Your task to perform on an android device: open app "The Home Depot" (install if not already installed) Image 0: 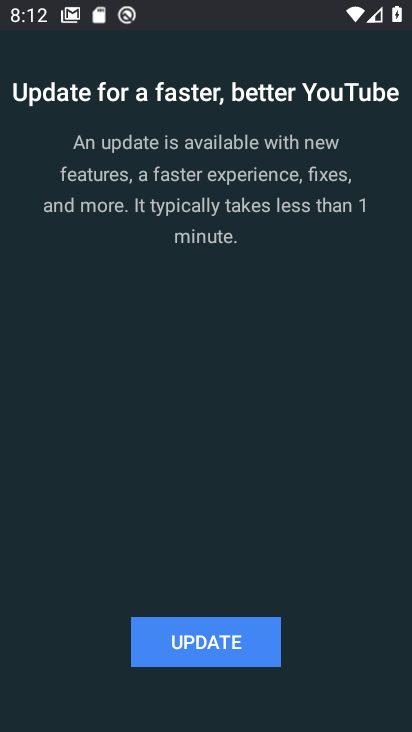
Step 0: press home button
Your task to perform on an android device: open app "The Home Depot" (install if not already installed) Image 1: 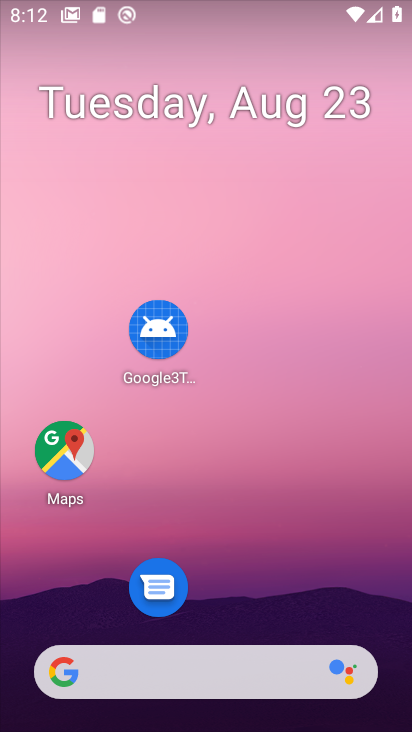
Step 1: drag from (245, 624) to (313, 11)
Your task to perform on an android device: open app "The Home Depot" (install if not already installed) Image 2: 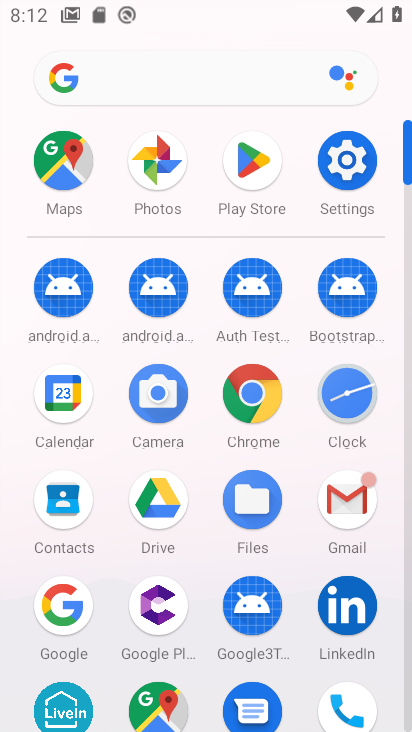
Step 2: click (248, 165)
Your task to perform on an android device: open app "The Home Depot" (install if not already installed) Image 3: 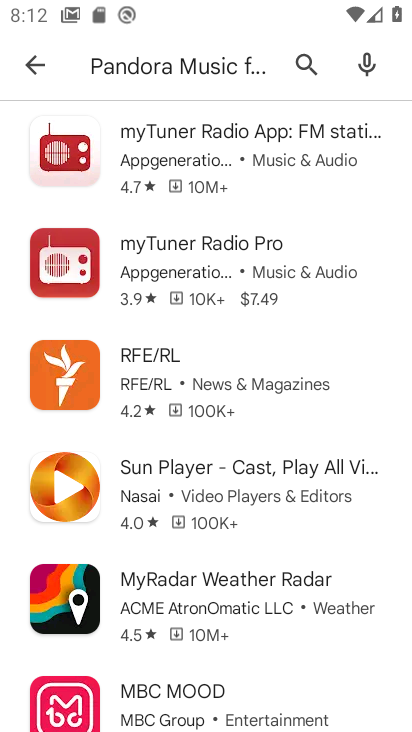
Step 3: click (308, 81)
Your task to perform on an android device: open app "The Home Depot" (install if not already installed) Image 4: 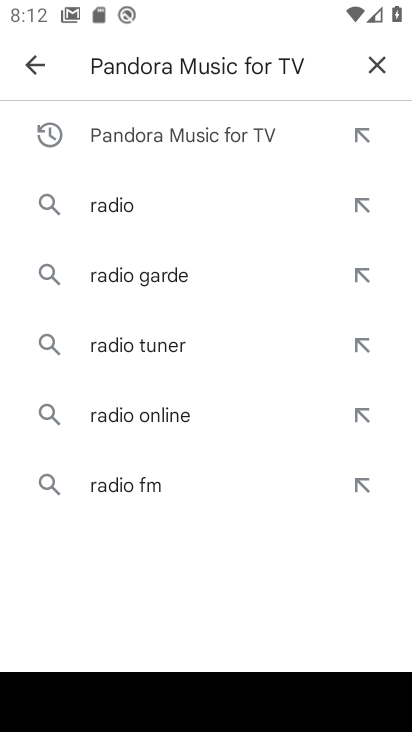
Step 4: click (375, 72)
Your task to perform on an android device: open app "The Home Depot" (install if not already installed) Image 5: 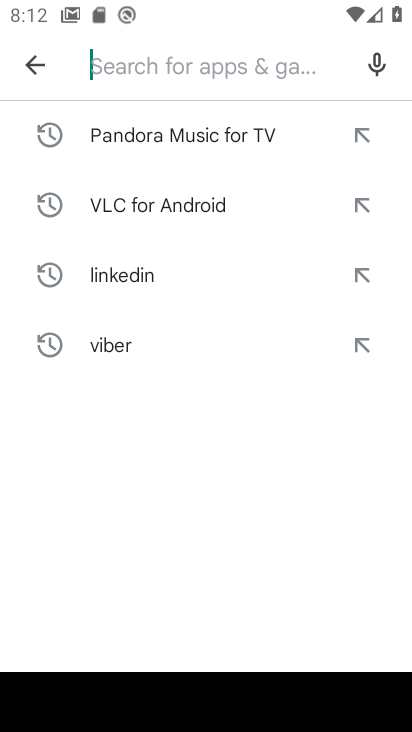
Step 5: type "the home depot"
Your task to perform on an android device: open app "The Home Depot" (install if not already installed) Image 6: 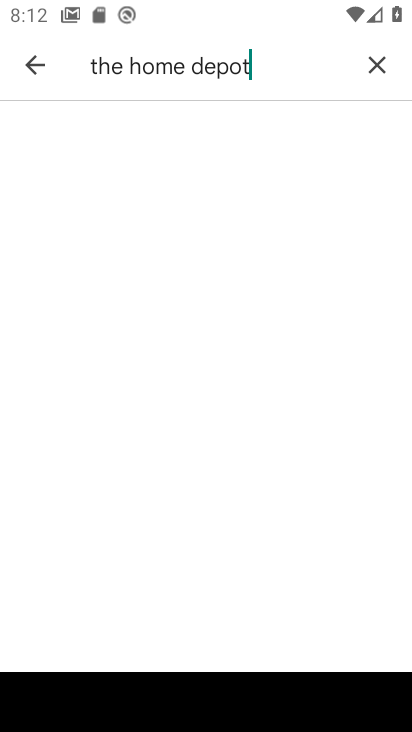
Step 6: task complete